Your task to perform on an android device: remove spam from my inbox in the gmail app Image 0: 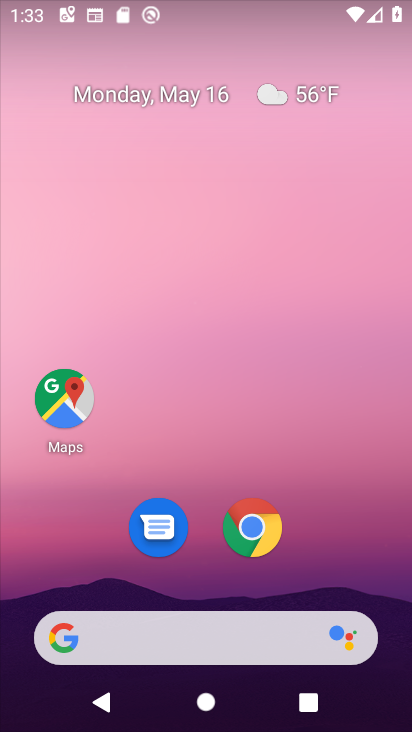
Step 0: drag from (183, 618) to (162, 288)
Your task to perform on an android device: remove spam from my inbox in the gmail app Image 1: 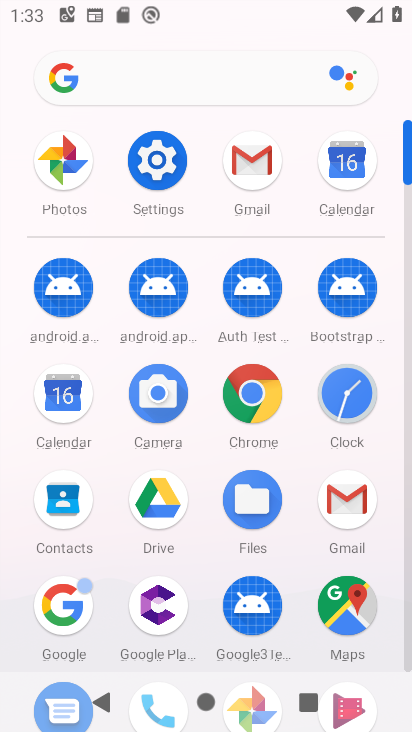
Step 1: click (354, 511)
Your task to perform on an android device: remove spam from my inbox in the gmail app Image 2: 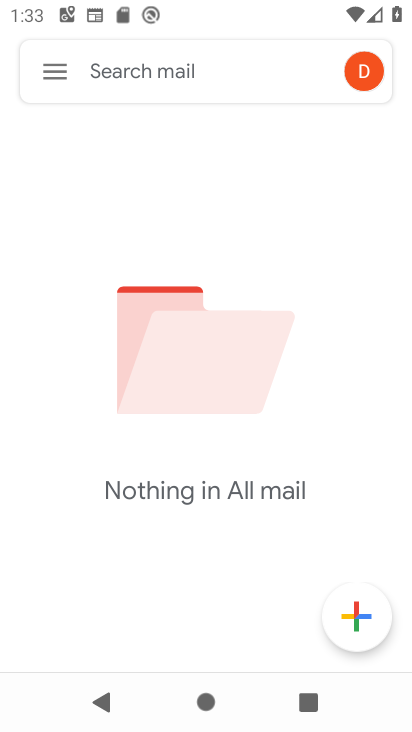
Step 2: click (53, 77)
Your task to perform on an android device: remove spam from my inbox in the gmail app Image 3: 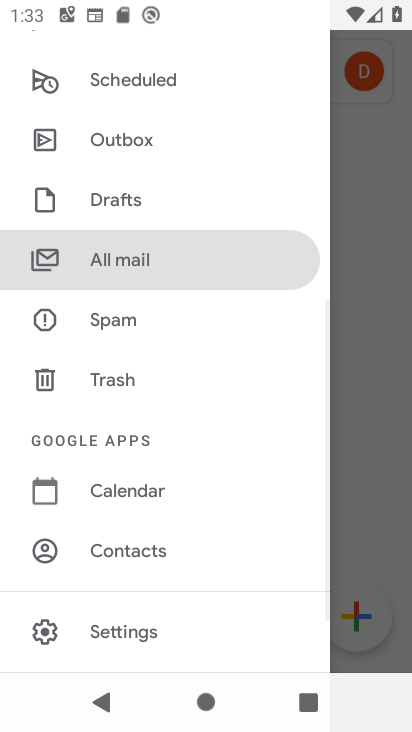
Step 3: drag from (143, 595) to (100, 287)
Your task to perform on an android device: remove spam from my inbox in the gmail app Image 4: 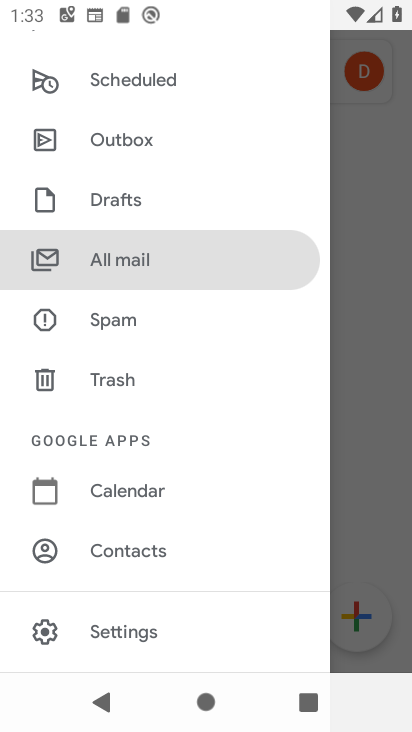
Step 4: click (124, 321)
Your task to perform on an android device: remove spam from my inbox in the gmail app Image 5: 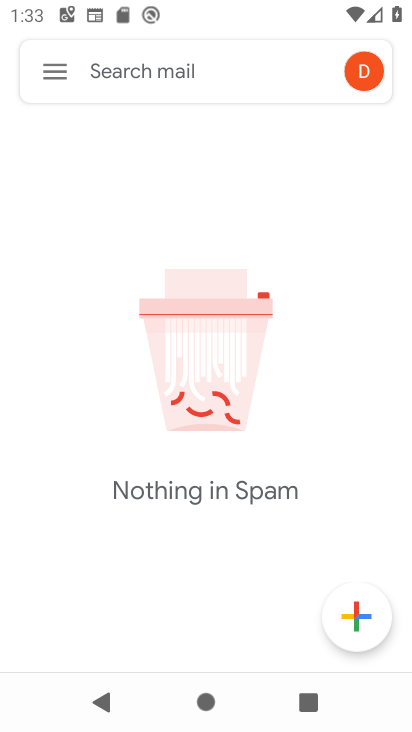
Step 5: task complete